Your task to perform on an android device: Open Chrome and go to settings Image 0: 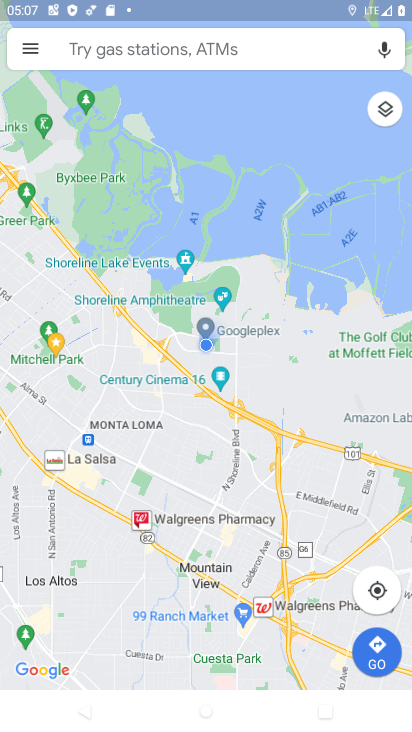
Step 0: press back button
Your task to perform on an android device: Open Chrome and go to settings Image 1: 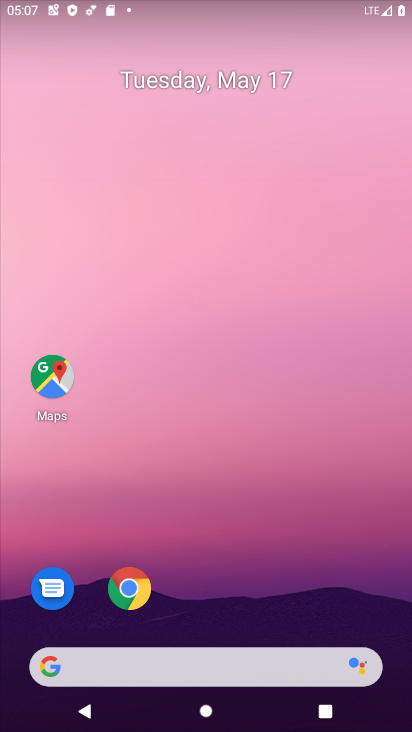
Step 1: click (129, 589)
Your task to perform on an android device: Open Chrome and go to settings Image 2: 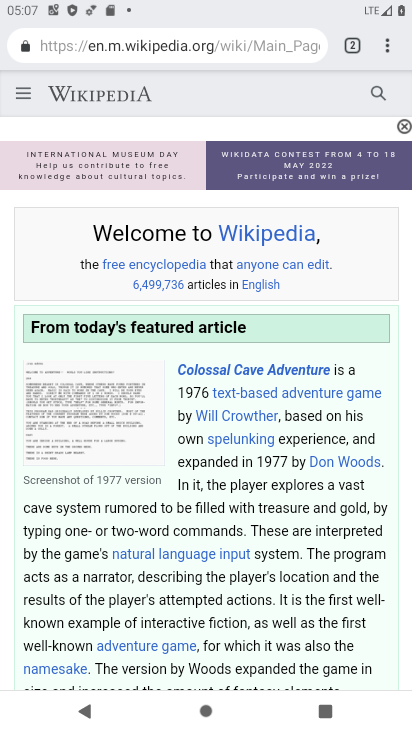
Step 2: click (387, 47)
Your task to perform on an android device: Open Chrome and go to settings Image 3: 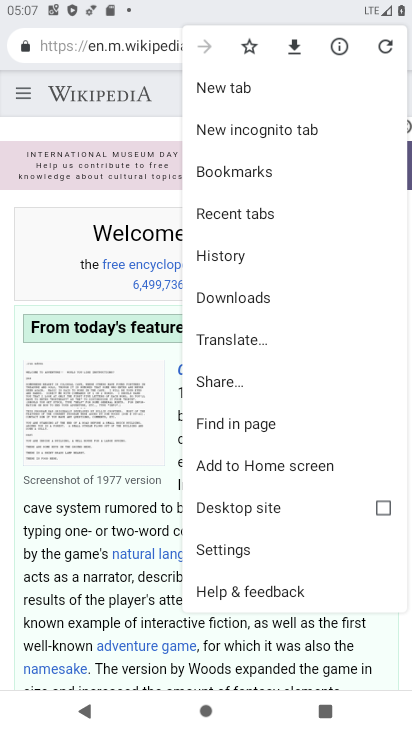
Step 3: click (224, 548)
Your task to perform on an android device: Open Chrome and go to settings Image 4: 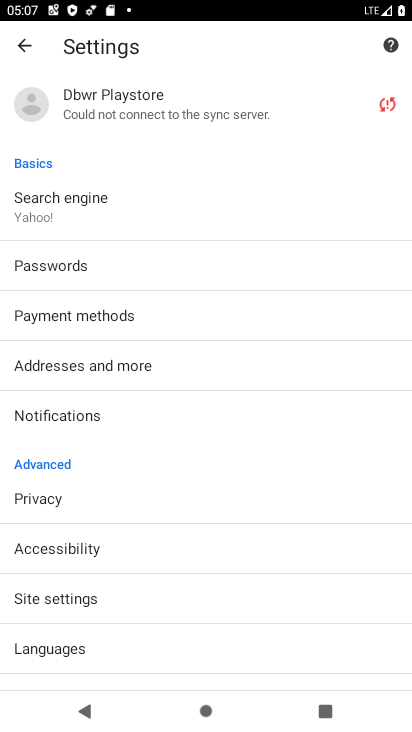
Step 4: task complete